Your task to perform on an android device: open app "Google Photos" (install if not already installed) Image 0: 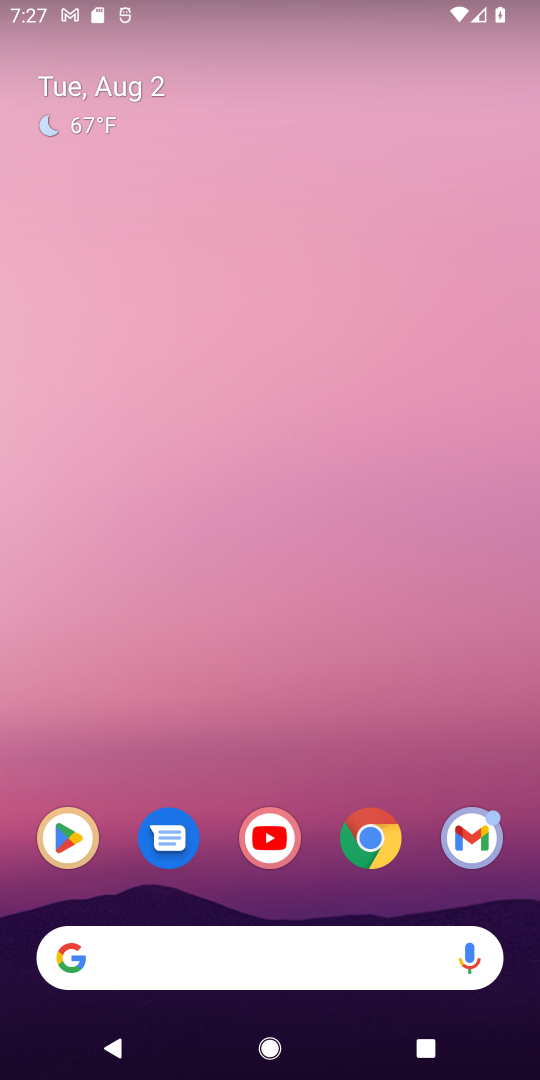
Step 0: click (47, 840)
Your task to perform on an android device: open app "Google Photos" (install if not already installed) Image 1: 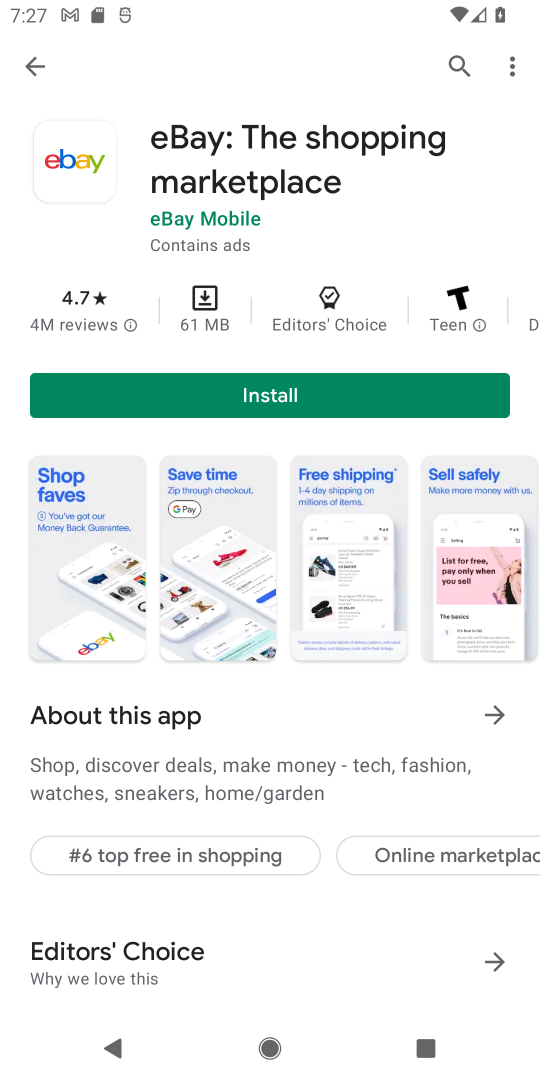
Step 1: click (463, 49)
Your task to perform on an android device: open app "Google Photos" (install if not already installed) Image 2: 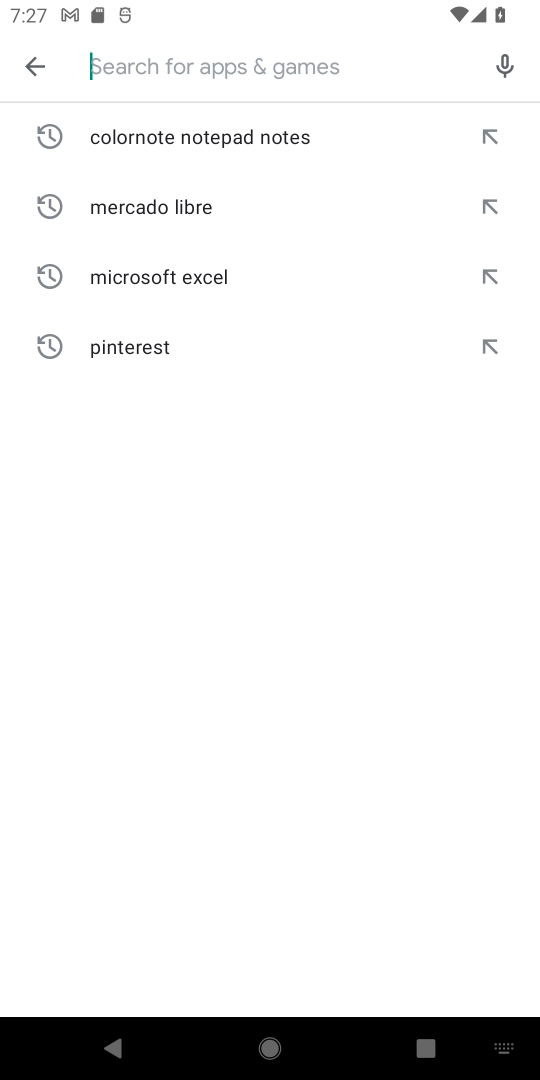
Step 2: type "google photos"
Your task to perform on an android device: open app "Google Photos" (install if not already installed) Image 3: 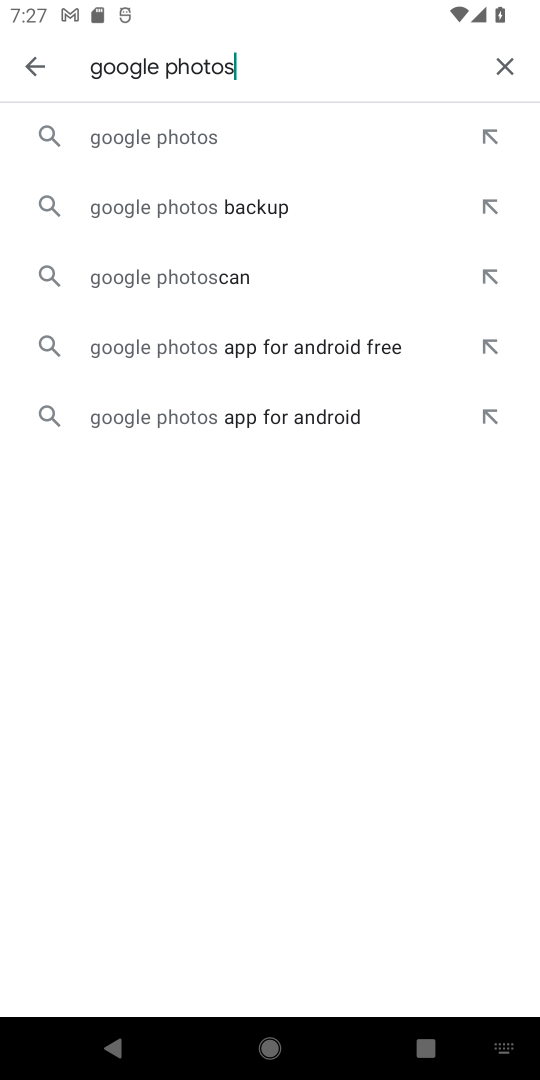
Step 3: click (144, 131)
Your task to perform on an android device: open app "Google Photos" (install if not already installed) Image 4: 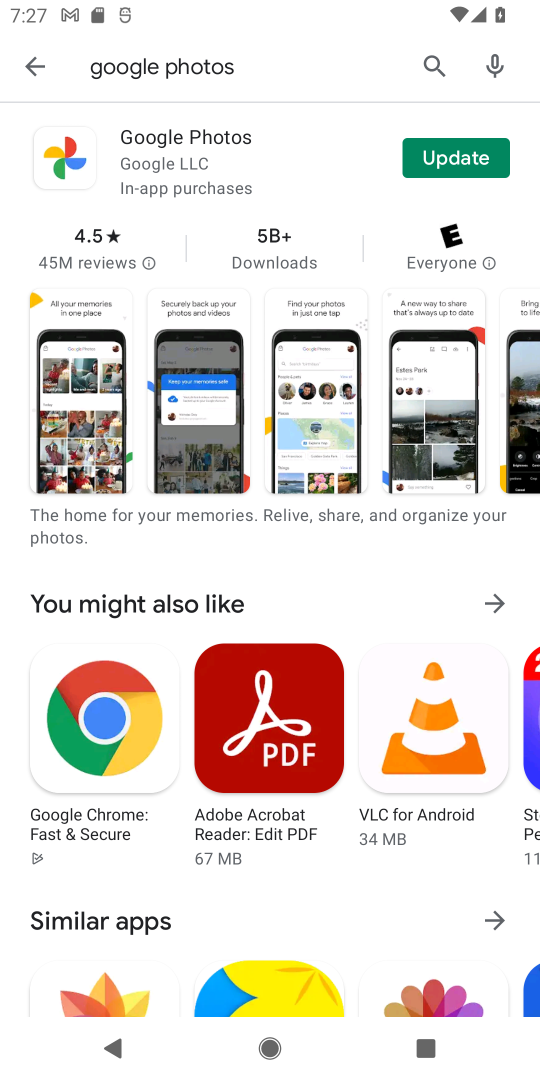
Step 4: click (226, 148)
Your task to perform on an android device: open app "Google Photos" (install if not already installed) Image 5: 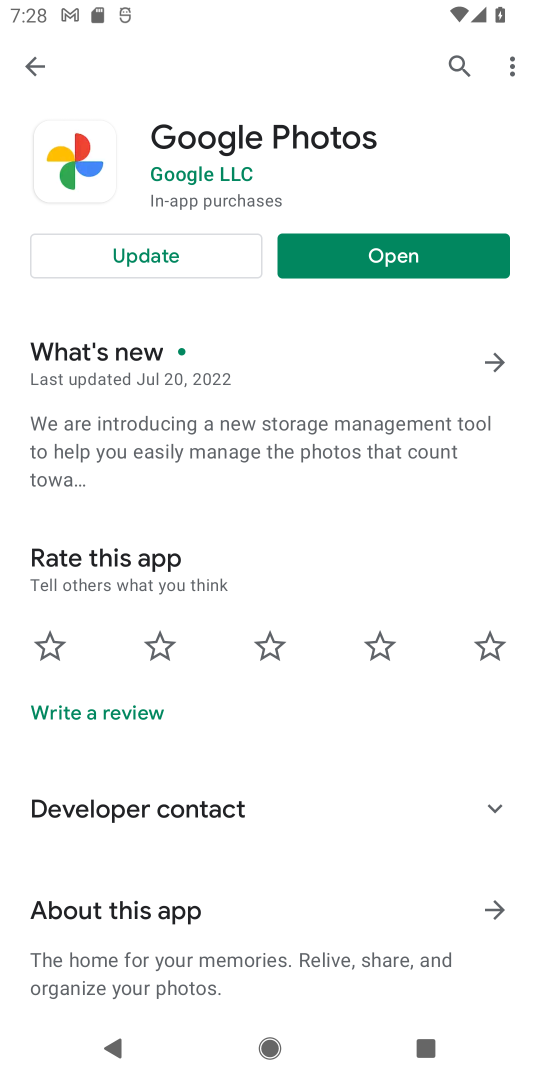
Step 5: click (418, 249)
Your task to perform on an android device: open app "Google Photos" (install if not already installed) Image 6: 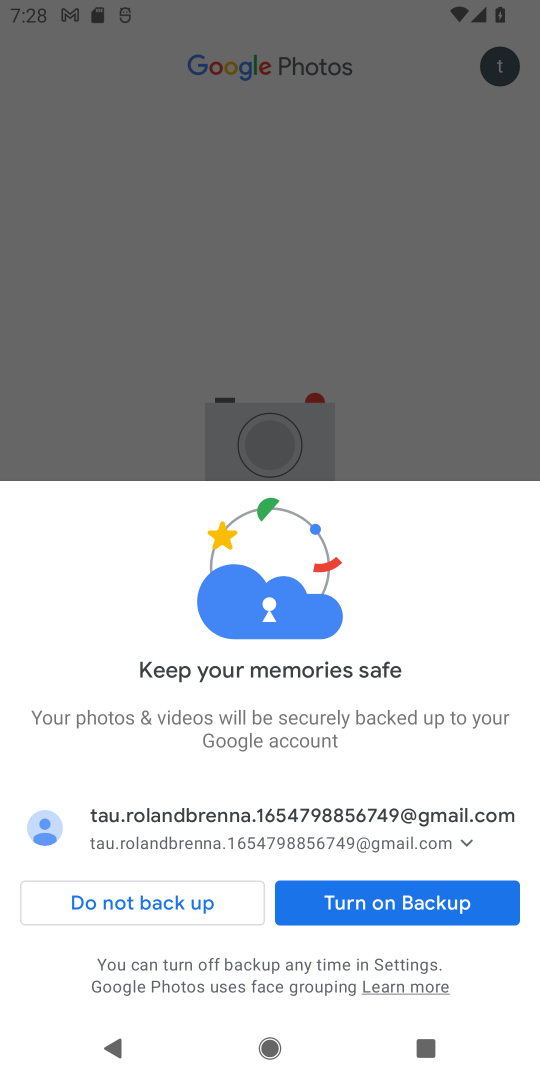
Step 6: task complete